Your task to perform on an android device: Go to Google Image 0: 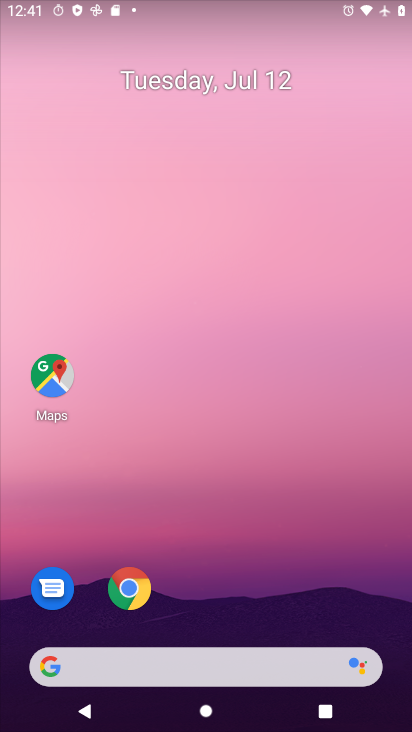
Step 0: drag from (171, 621) to (383, 157)
Your task to perform on an android device: Go to Google Image 1: 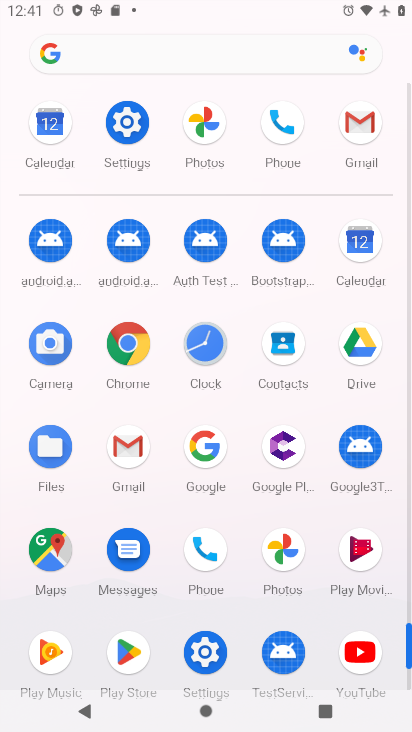
Step 1: click (208, 460)
Your task to perform on an android device: Go to Google Image 2: 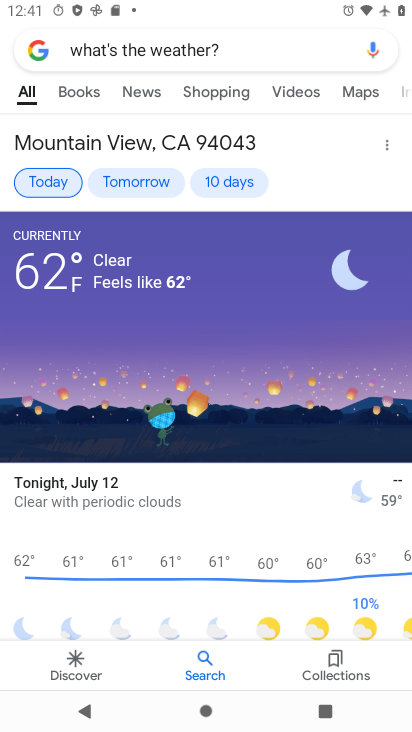
Step 2: press back button
Your task to perform on an android device: Go to Google Image 3: 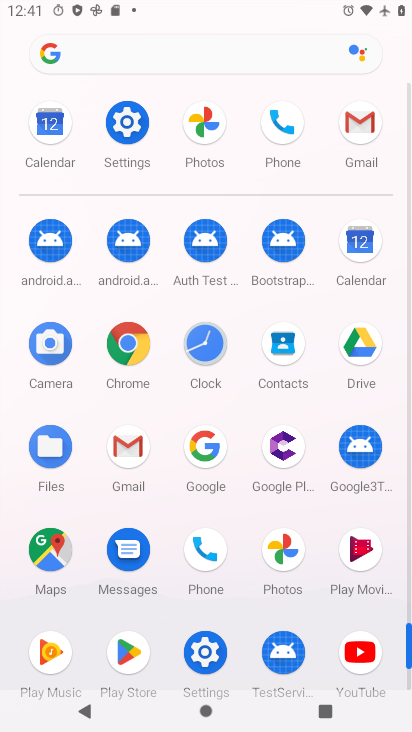
Step 3: click (204, 453)
Your task to perform on an android device: Go to Google Image 4: 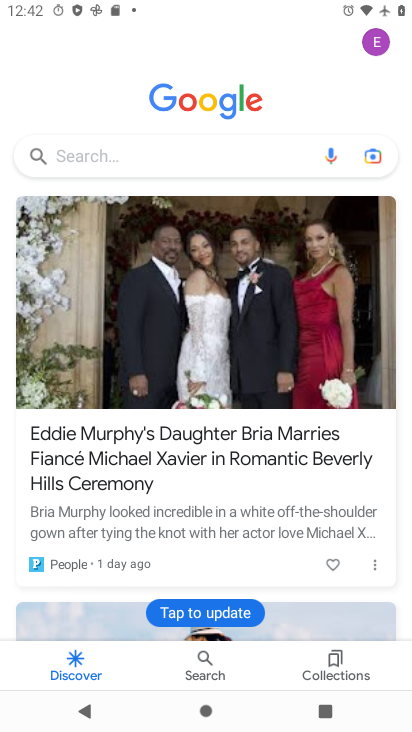
Step 4: task complete